Your task to perform on an android device: Search for the best rated vacuums on Target Image 0: 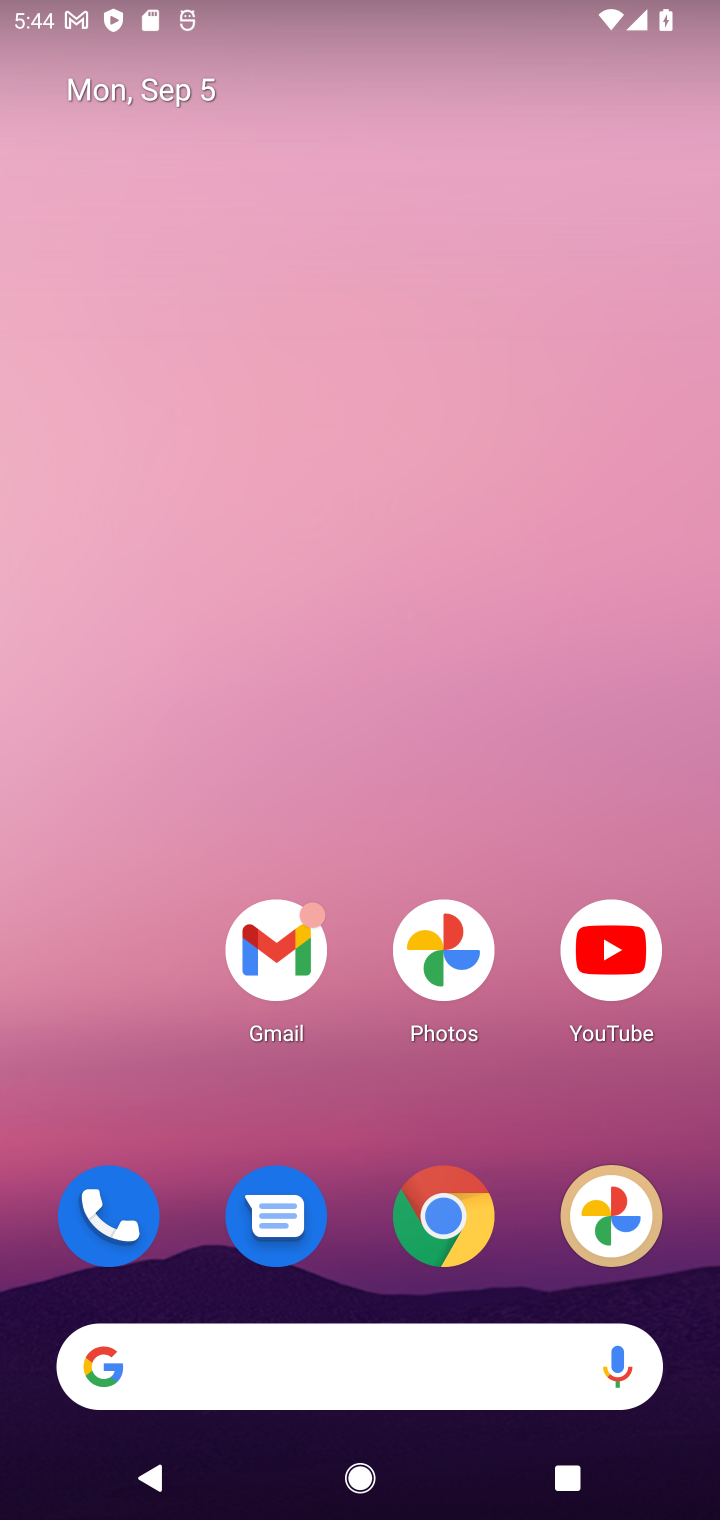
Step 0: click (435, 1241)
Your task to perform on an android device: Search for the best rated vacuums on Target Image 1: 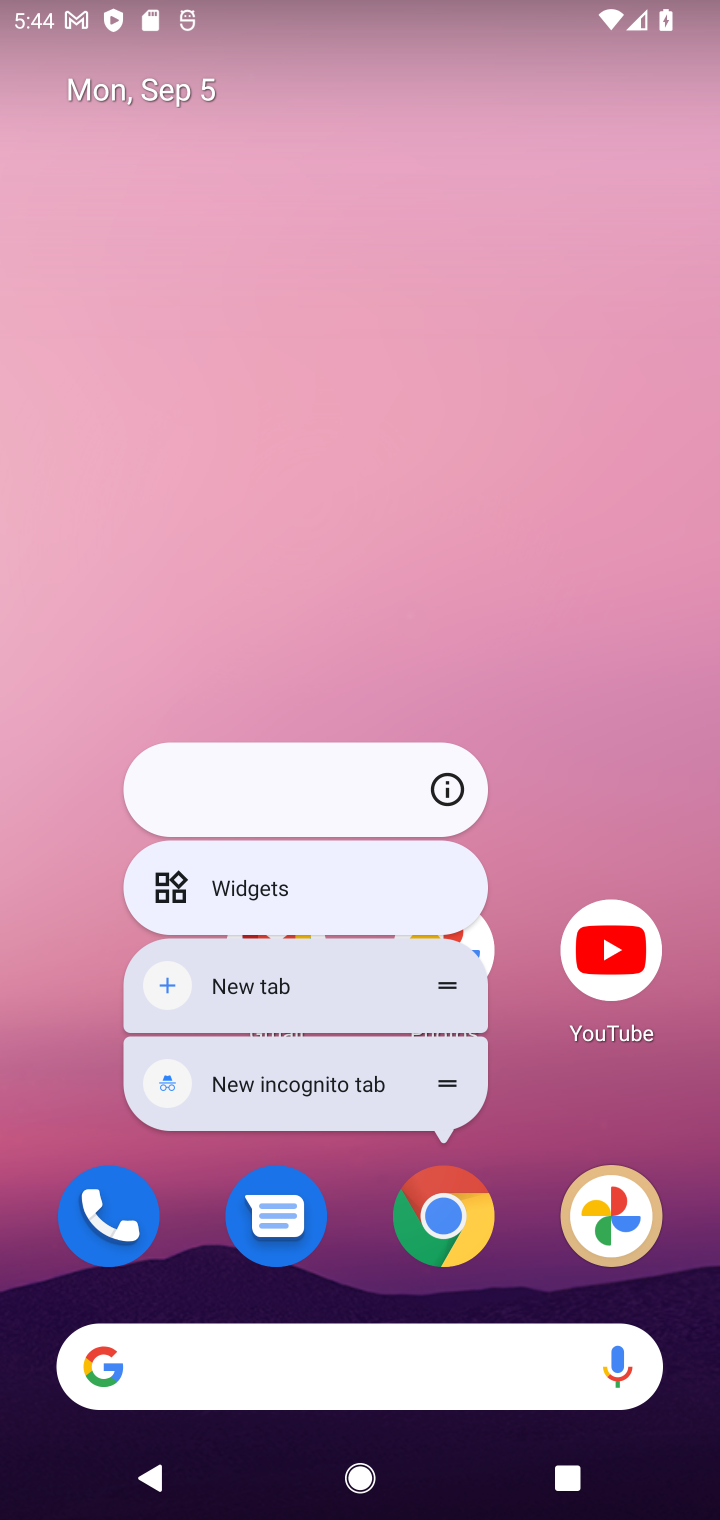
Step 1: click (439, 1219)
Your task to perform on an android device: Search for the best rated vacuums on Target Image 2: 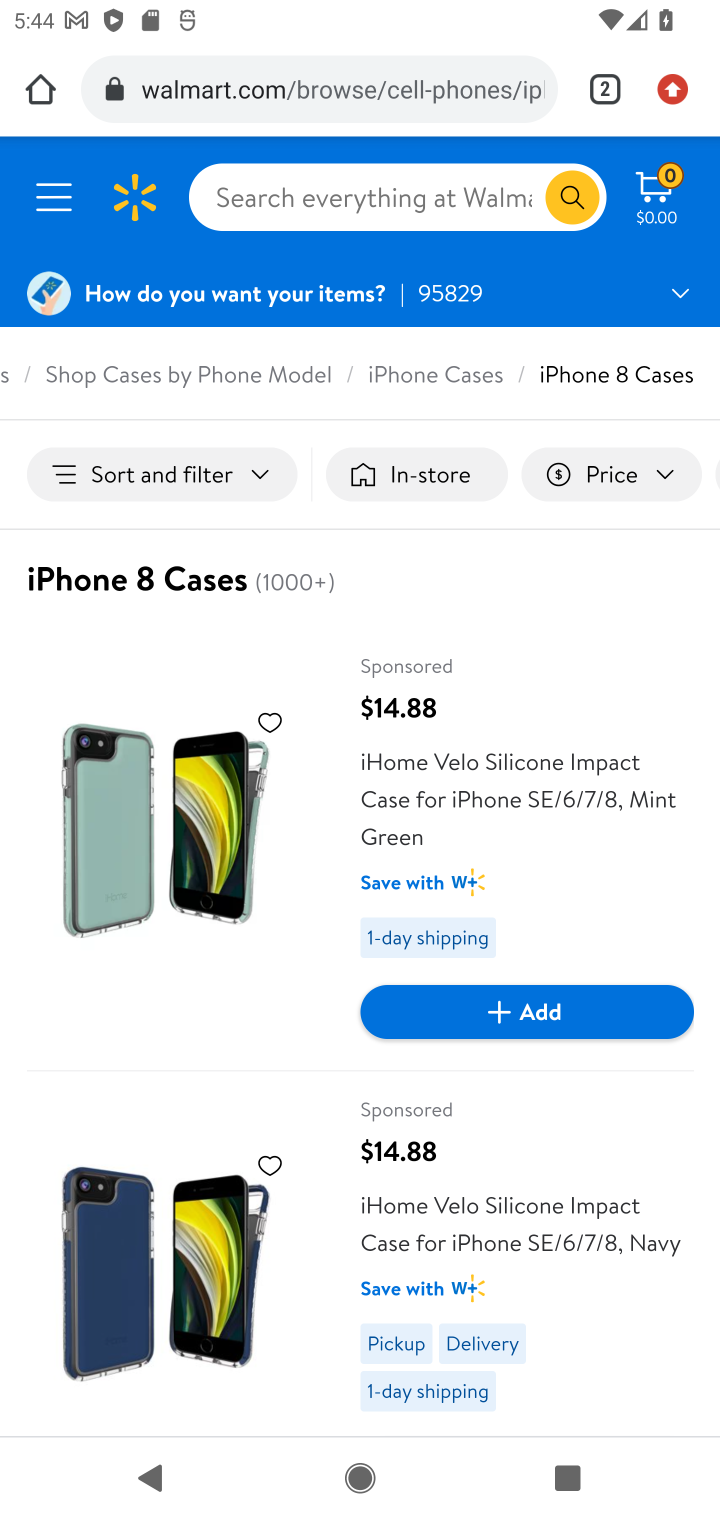
Step 2: click (317, 86)
Your task to perform on an android device: Search for the best rated vacuums on Target Image 3: 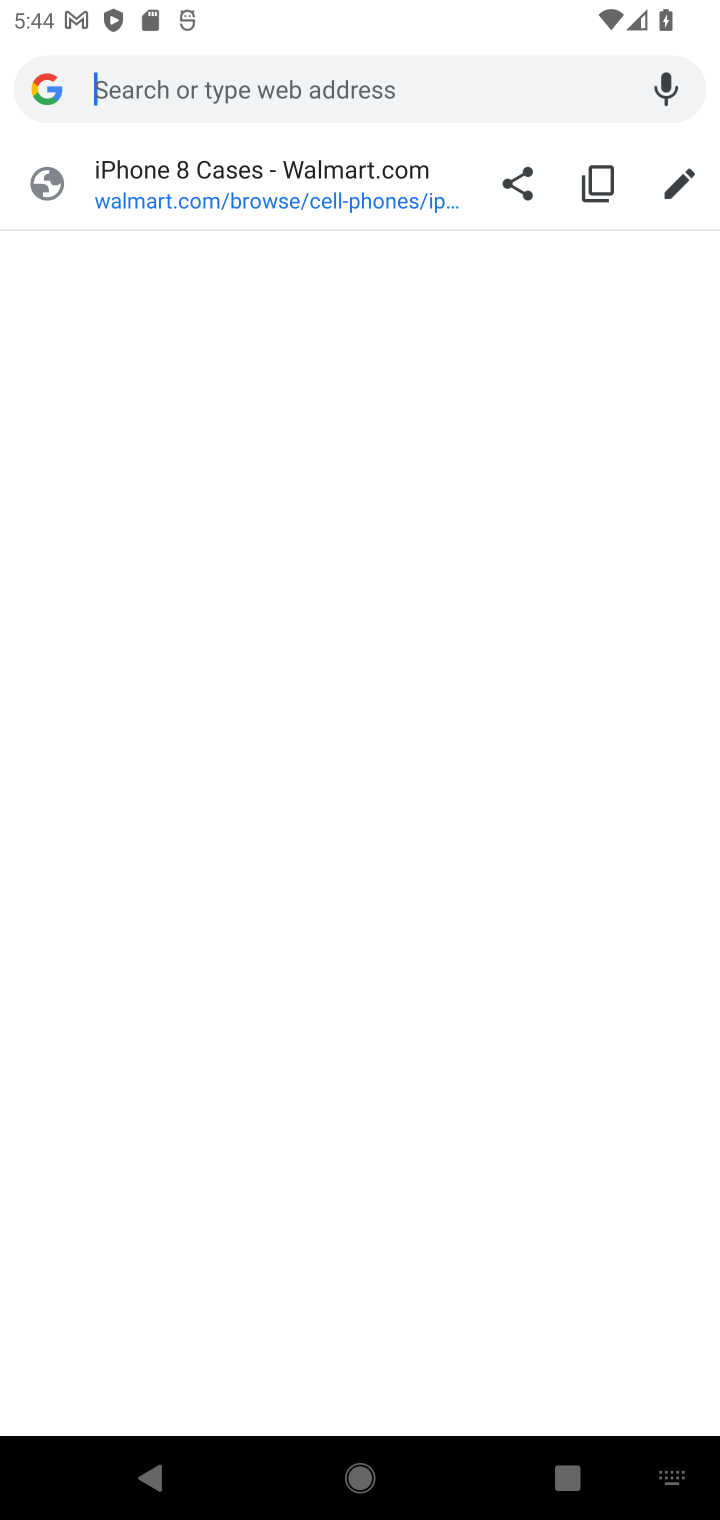
Step 3: type "vacuums"
Your task to perform on an android device: Search for the best rated vacuums on Target Image 4: 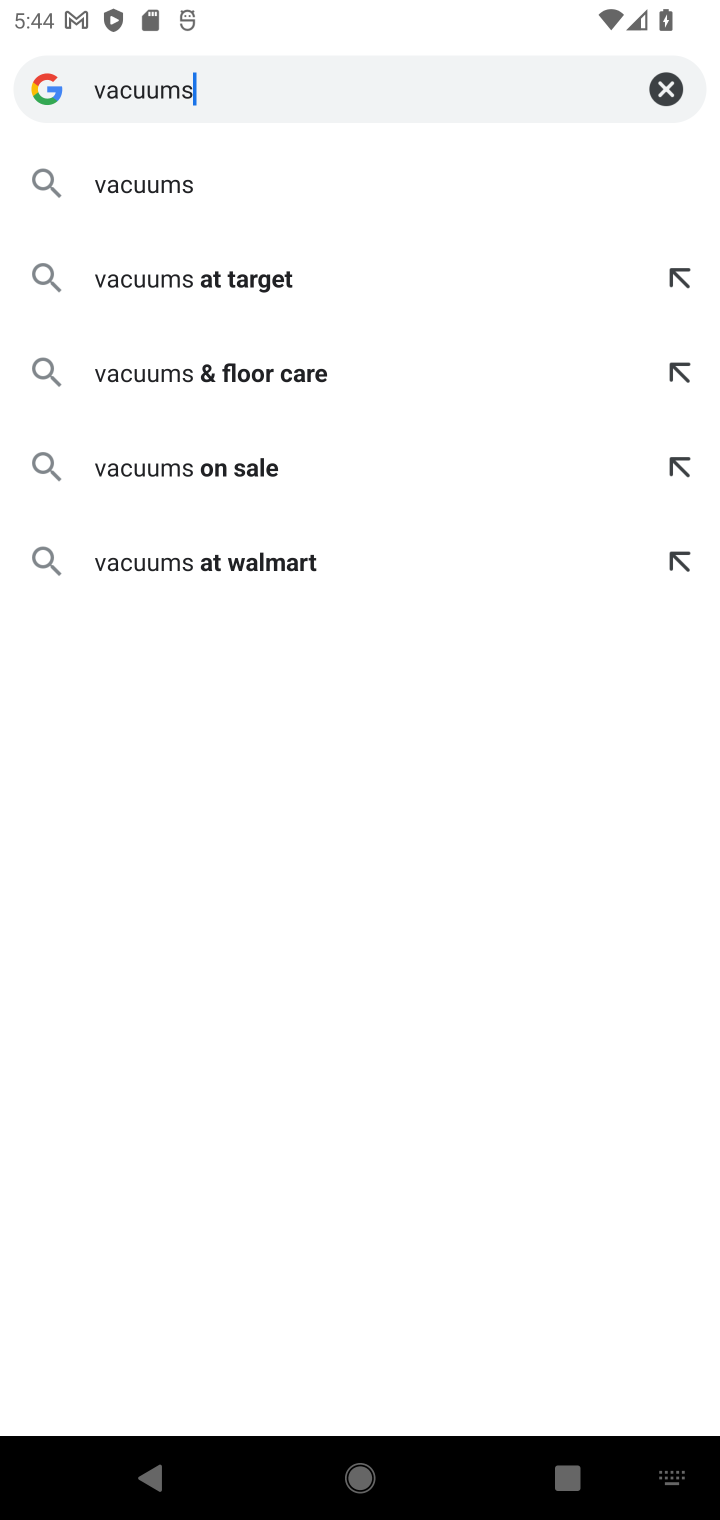
Step 4: click (133, 193)
Your task to perform on an android device: Search for the best rated vacuums on Target Image 5: 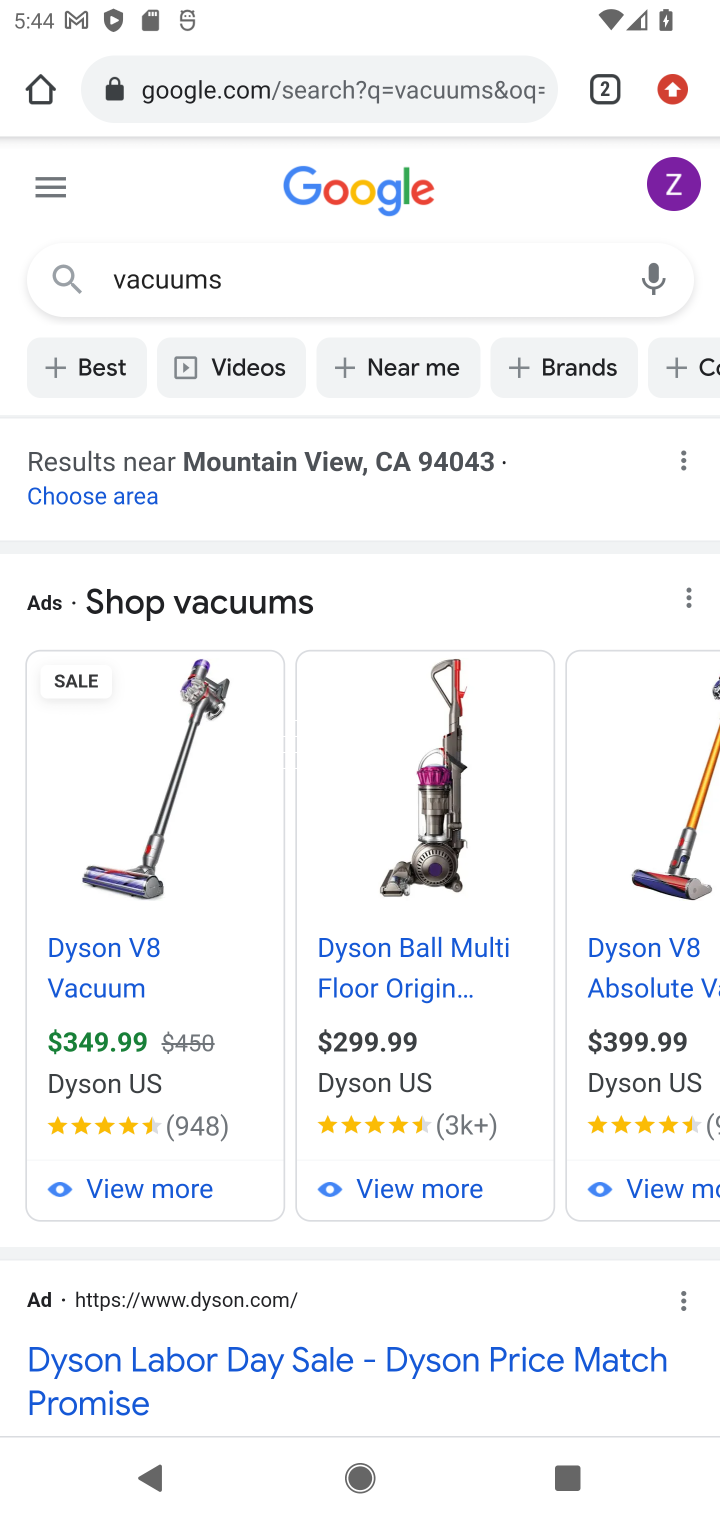
Step 5: drag from (226, 1301) to (303, 350)
Your task to perform on an android device: Search for the best rated vacuums on Target Image 6: 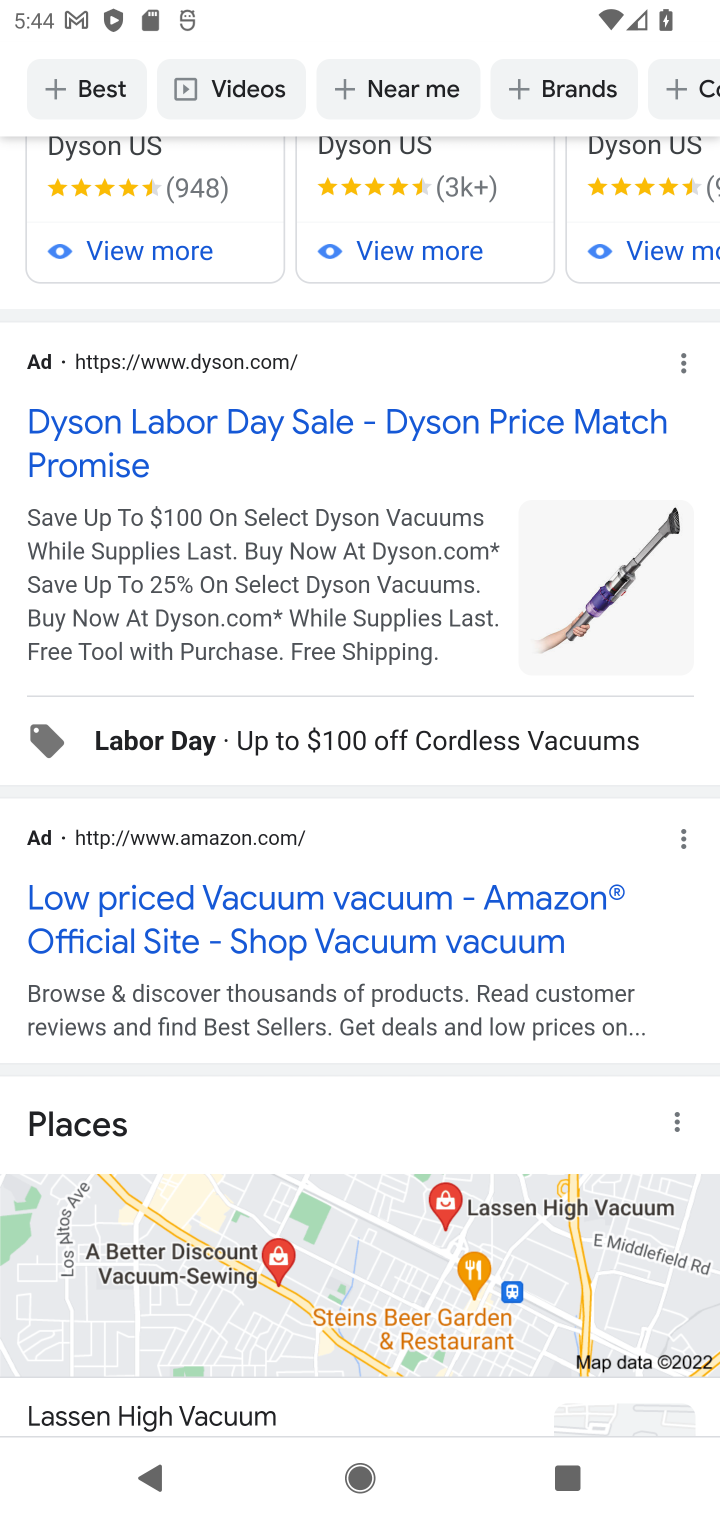
Step 6: click (244, 905)
Your task to perform on an android device: Search for the best rated vacuums on Target Image 7: 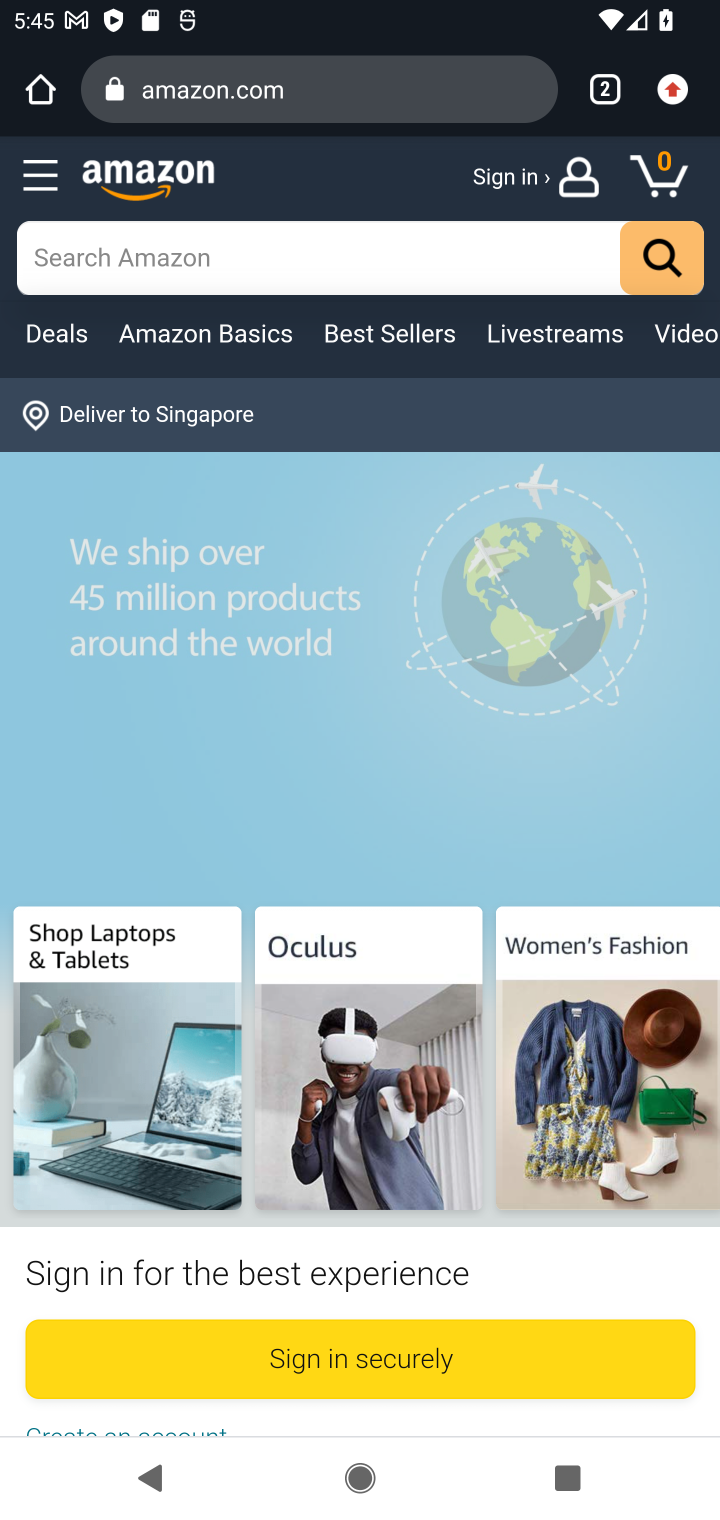
Step 7: task complete